Your task to perform on an android device: Open Amazon Image 0: 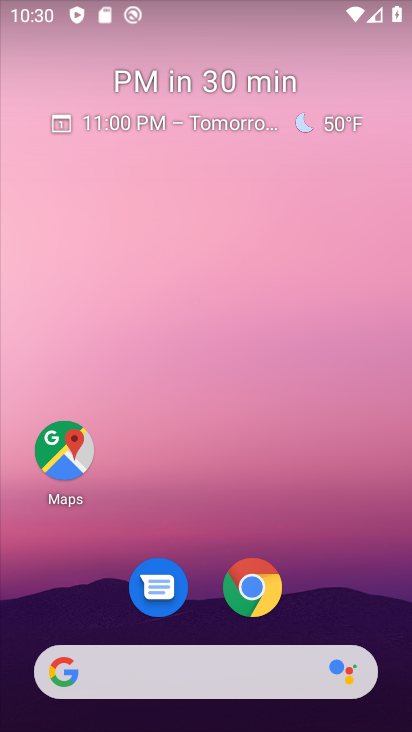
Step 0: click (233, 577)
Your task to perform on an android device: Open Amazon Image 1: 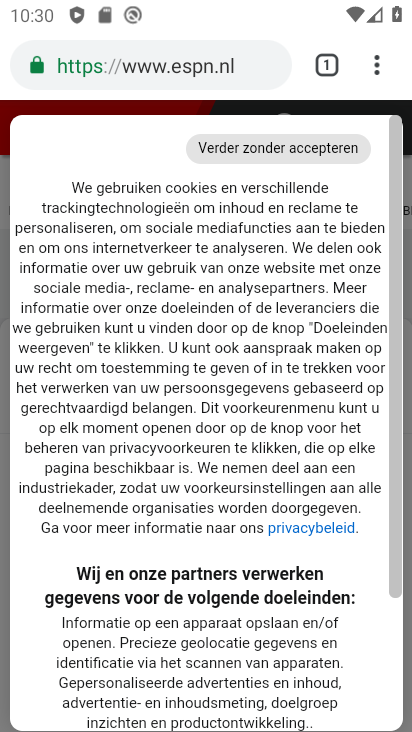
Step 1: click (327, 61)
Your task to perform on an android device: Open Amazon Image 2: 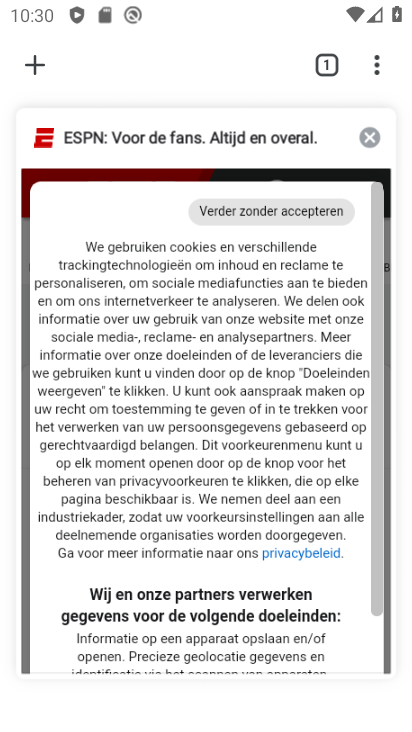
Step 2: click (38, 74)
Your task to perform on an android device: Open Amazon Image 3: 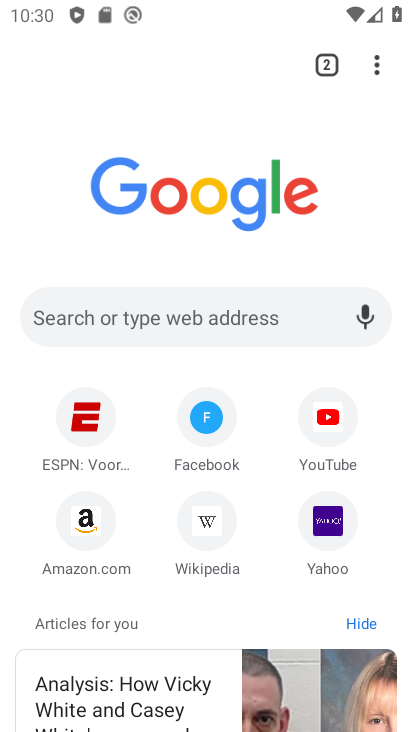
Step 3: click (85, 515)
Your task to perform on an android device: Open Amazon Image 4: 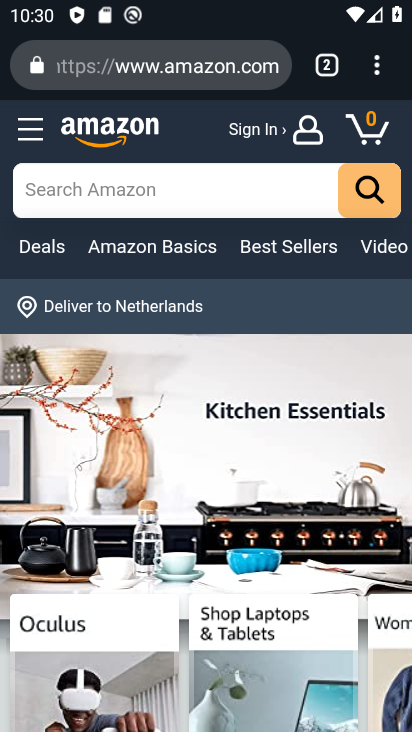
Step 4: task complete